Your task to perform on an android device: check google app version Image 0: 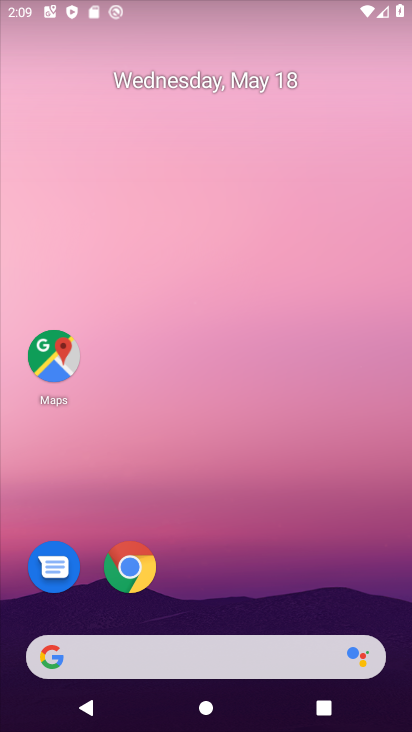
Step 0: drag from (213, 604) to (237, 296)
Your task to perform on an android device: check google app version Image 1: 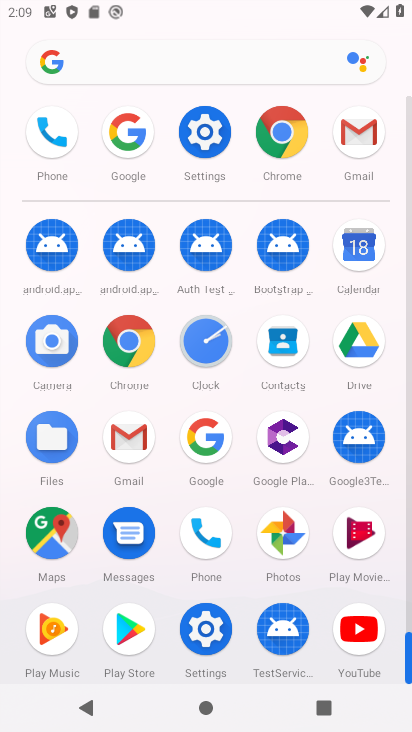
Step 1: click (200, 436)
Your task to perform on an android device: check google app version Image 2: 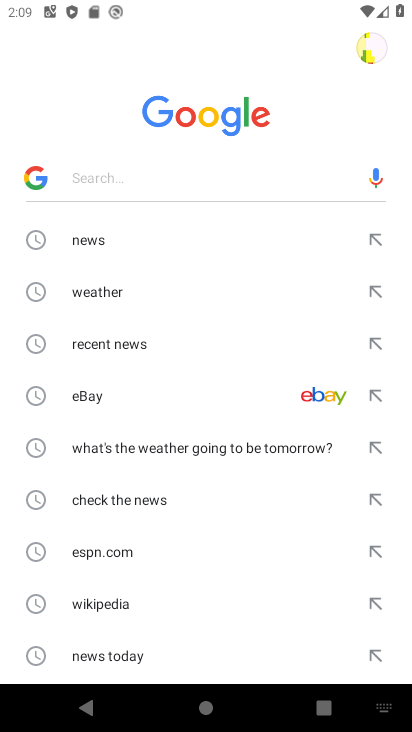
Step 2: click (370, 44)
Your task to perform on an android device: check google app version Image 3: 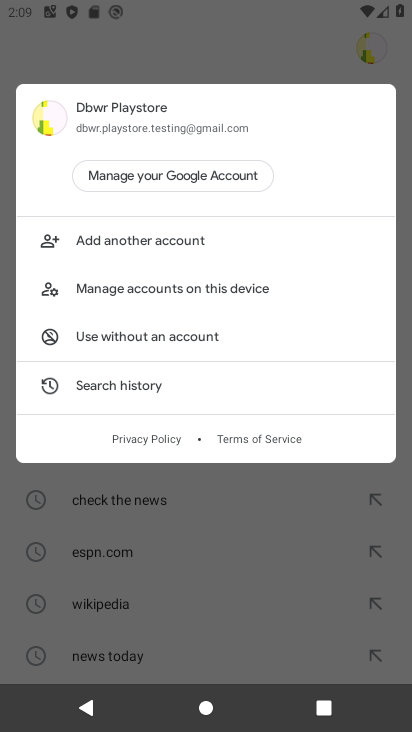
Step 3: drag from (133, 353) to (168, 227)
Your task to perform on an android device: check google app version Image 4: 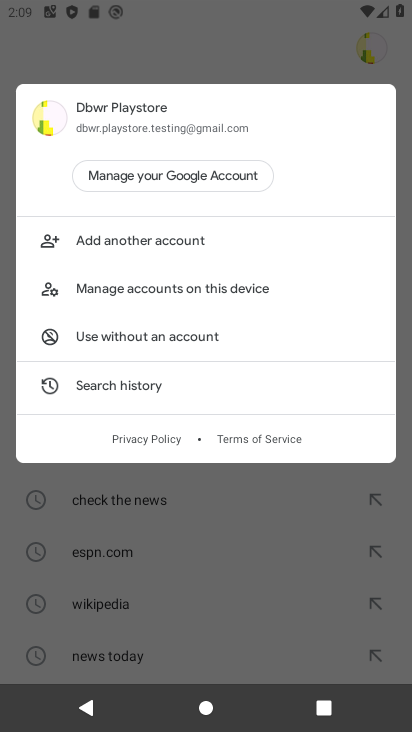
Step 4: click (97, 698)
Your task to perform on an android device: check google app version Image 5: 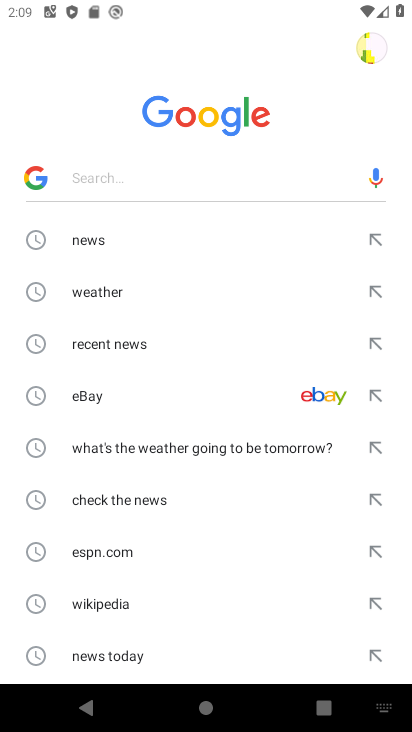
Step 5: click (29, 181)
Your task to perform on an android device: check google app version Image 6: 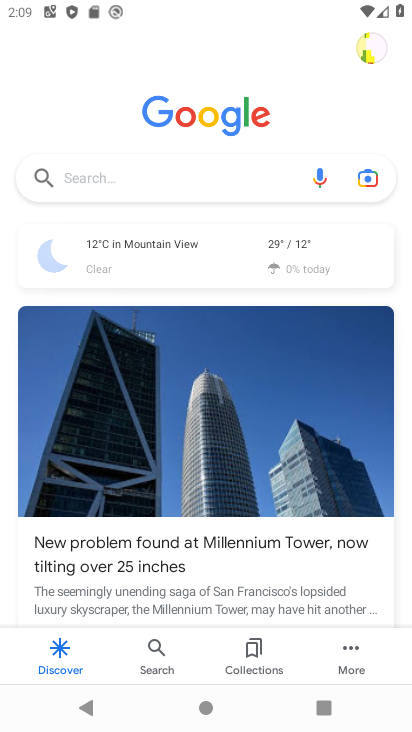
Step 6: click (343, 641)
Your task to perform on an android device: check google app version Image 7: 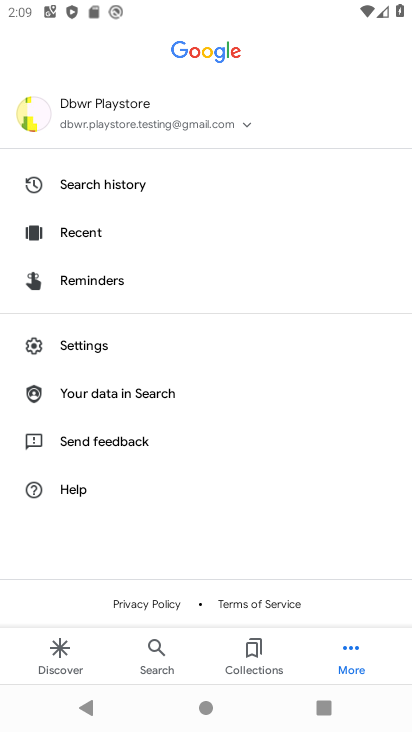
Step 7: click (111, 353)
Your task to perform on an android device: check google app version Image 8: 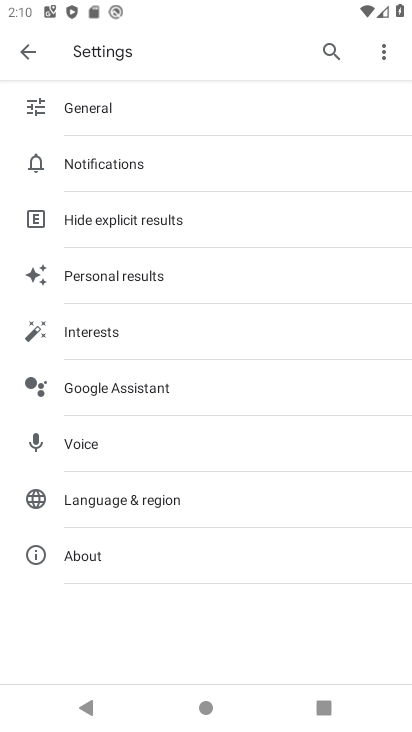
Step 8: click (132, 539)
Your task to perform on an android device: check google app version Image 9: 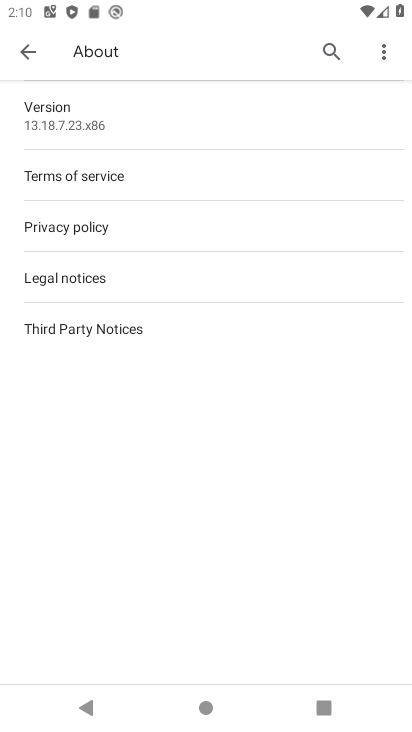
Step 9: task complete